Your task to perform on an android device: choose inbox layout in the gmail app Image 0: 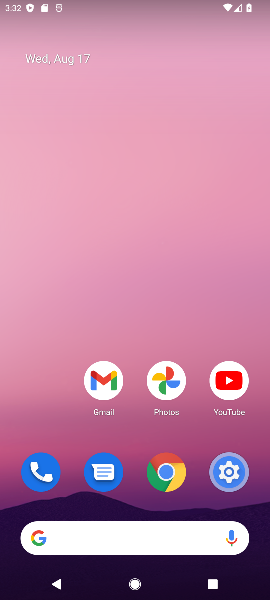
Step 0: click (106, 377)
Your task to perform on an android device: choose inbox layout in the gmail app Image 1: 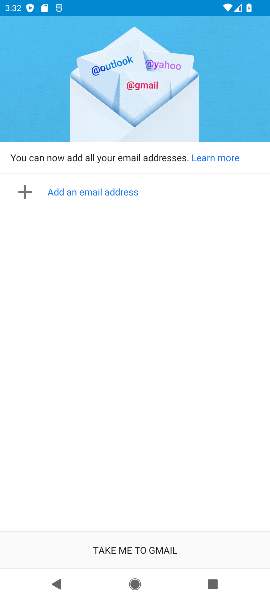
Step 1: click (143, 543)
Your task to perform on an android device: choose inbox layout in the gmail app Image 2: 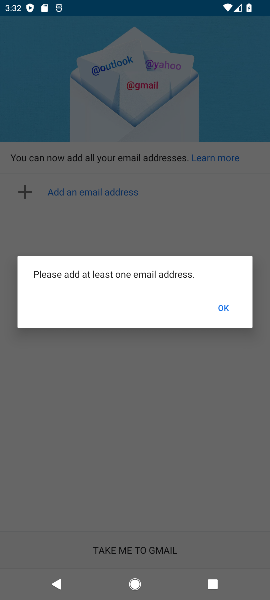
Step 2: task complete